Your task to perform on an android device: turn off wifi Image 0: 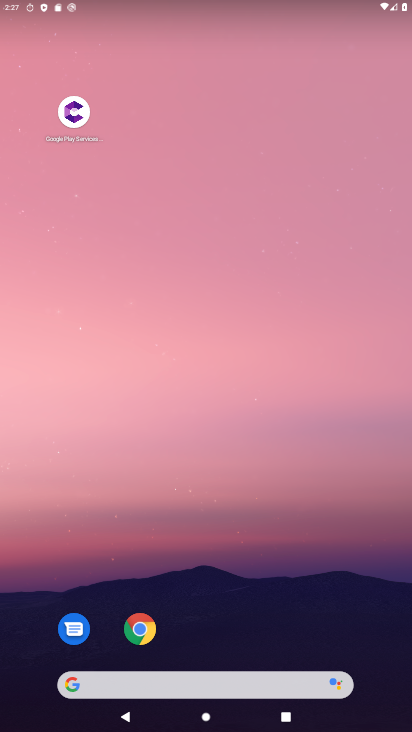
Step 0: drag from (299, 684) to (313, 51)
Your task to perform on an android device: turn off wifi Image 1: 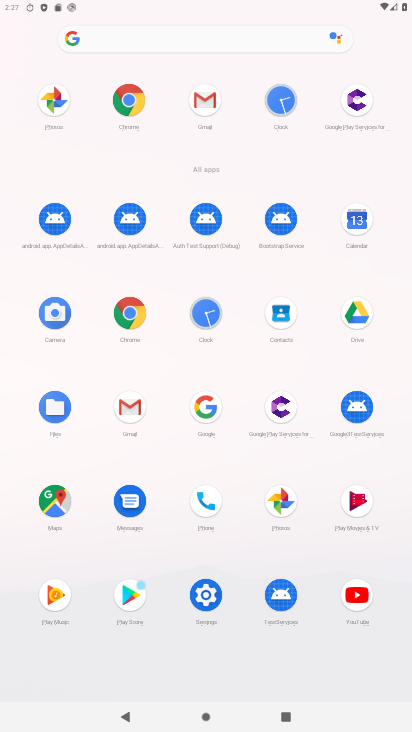
Step 1: click (211, 591)
Your task to perform on an android device: turn off wifi Image 2: 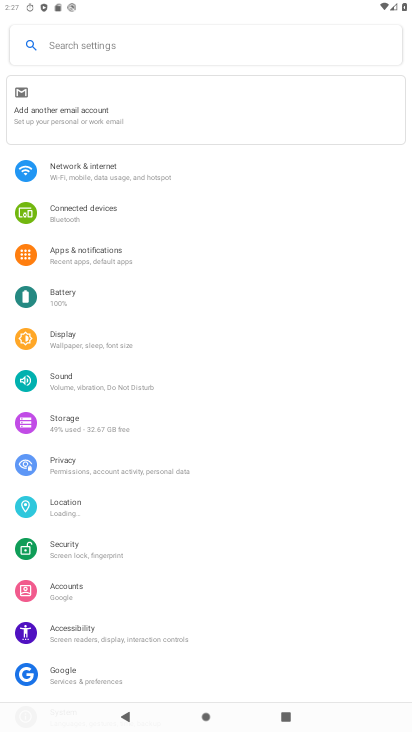
Step 2: click (125, 153)
Your task to perform on an android device: turn off wifi Image 3: 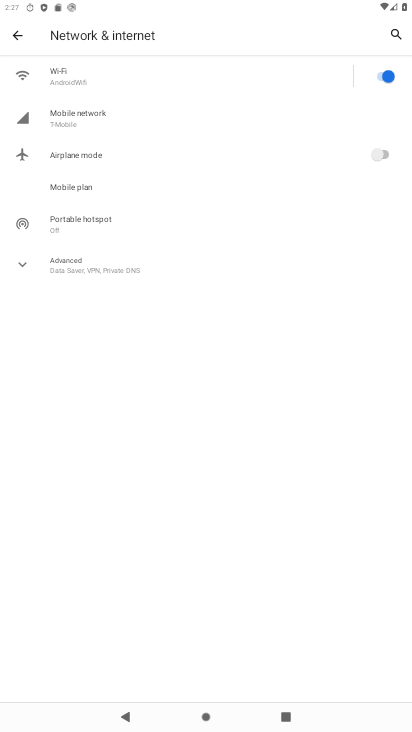
Step 3: click (385, 75)
Your task to perform on an android device: turn off wifi Image 4: 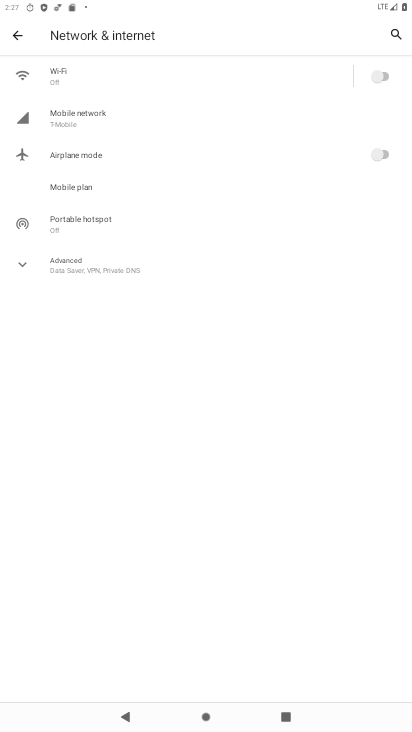
Step 4: task complete